Your task to perform on an android device: empty trash in google photos Image 0: 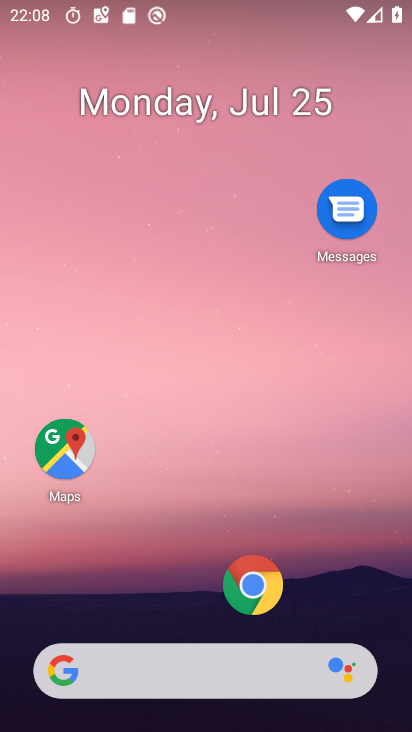
Step 0: press home button
Your task to perform on an android device: empty trash in google photos Image 1: 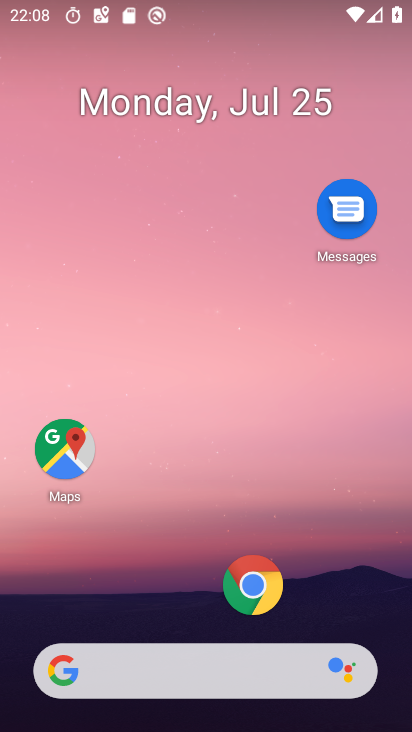
Step 1: drag from (173, 672) to (261, 99)
Your task to perform on an android device: empty trash in google photos Image 2: 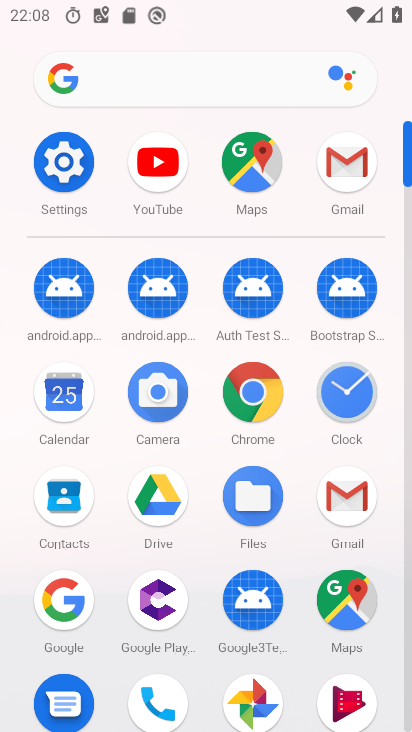
Step 2: drag from (202, 636) to (259, 224)
Your task to perform on an android device: empty trash in google photos Image 3: 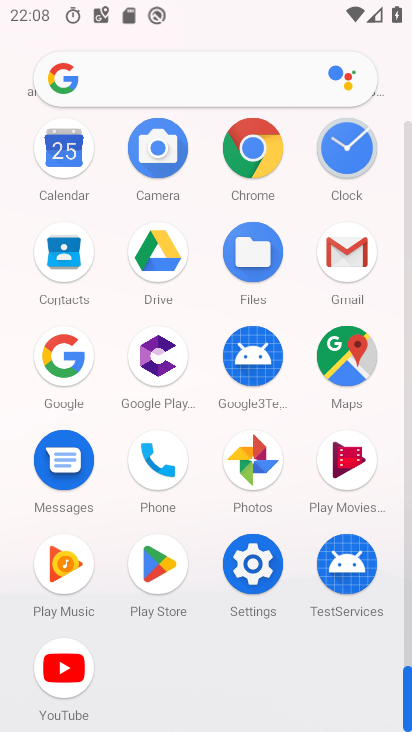
Step 3: click (259, 461)
Your task to perform on an android device: empty trash in google photos Image 4: 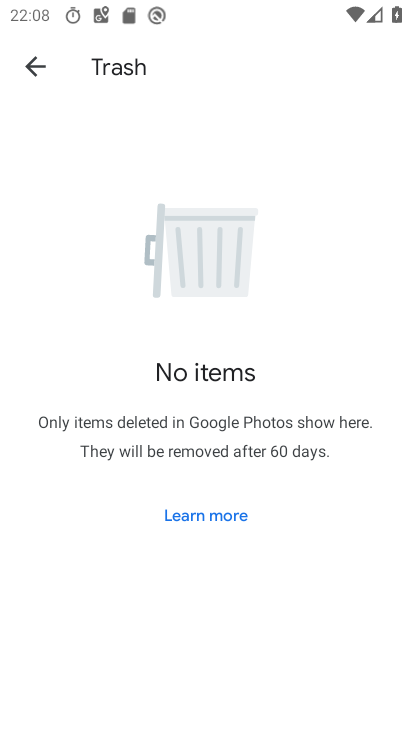
Step 4: task complete